Your task to perform on an android device: check storage Image 0: 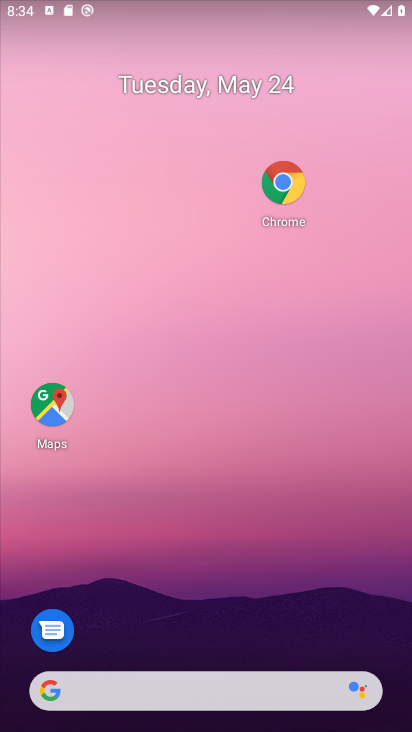
Step 0: drag from (245, 665) to (291, 165)
Your task to perform on an android device: check storage Image 1: 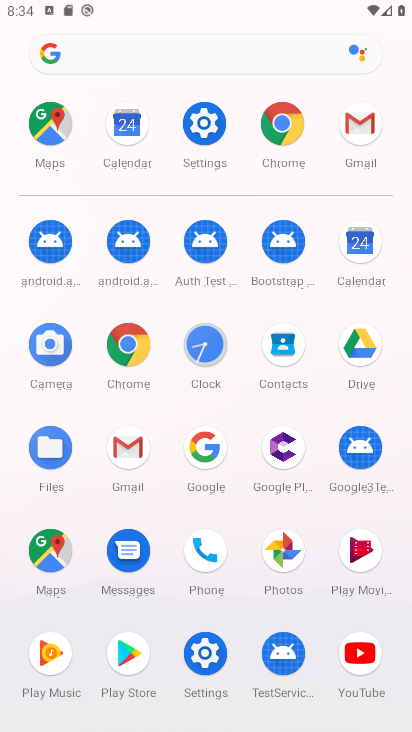
Step 1: click (210, 648)
Your task to perform on an android device: check storage Image 2: 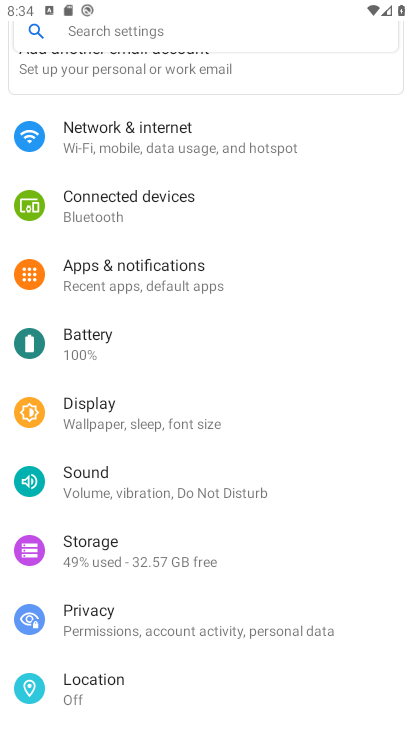
Step 2: click (64, 26)
Your task to perform on an android device: check storage Image 3: 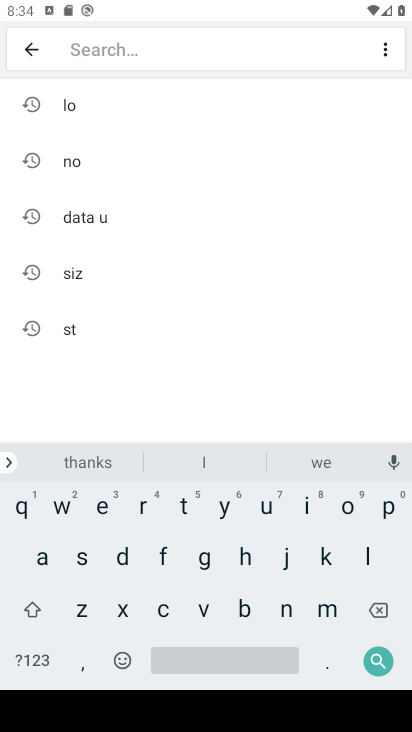
Step 3: click (77, 561)
Your task to perform on an android device: check storage Image 4: 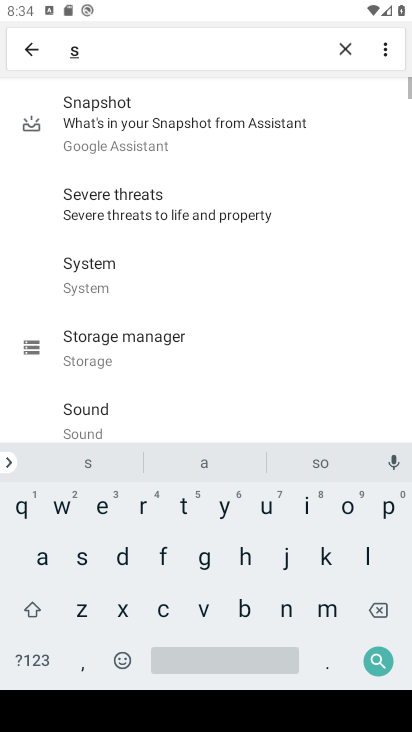
Step 4: click (185, 516)
Your task to perform on an android device: check storage Image 5: 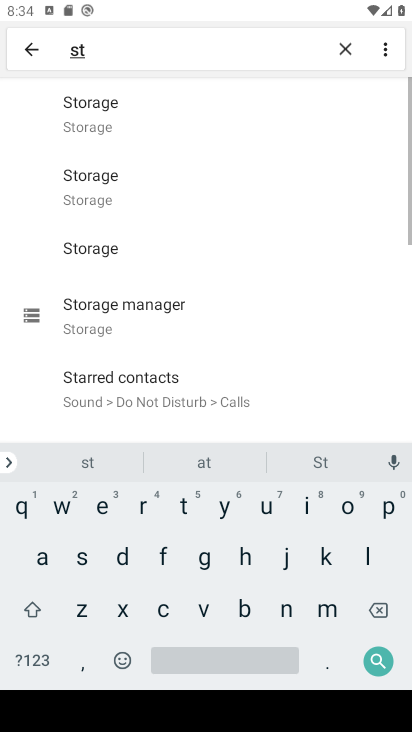
Step 5: click (112, 122)
Your task to perform on an android device: check storage Image 6: 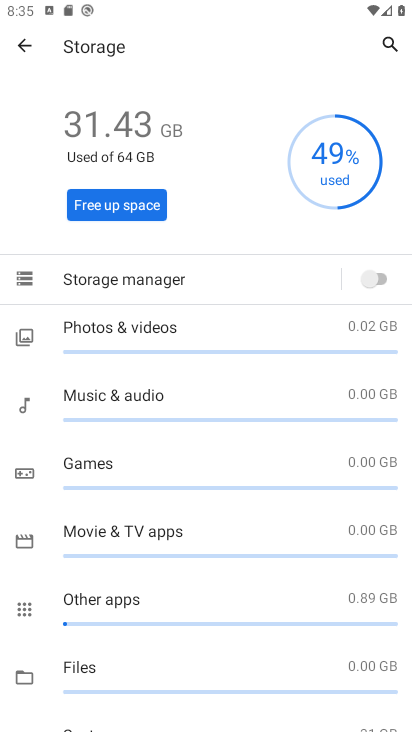
Step 6: task complete